Your task to perform on an android device: Open calendar and show me the first week of next month Image 0: 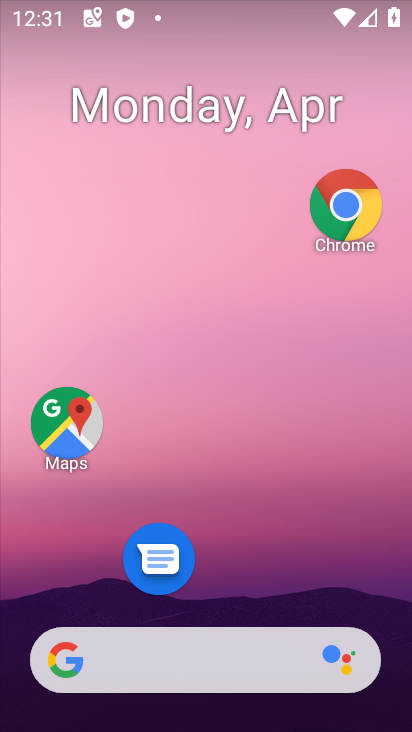
Step 0: drag from (256, 567) to (253, 107)
Your task to perform on an android device: Open calendar and show me the first week of next month Image 1: 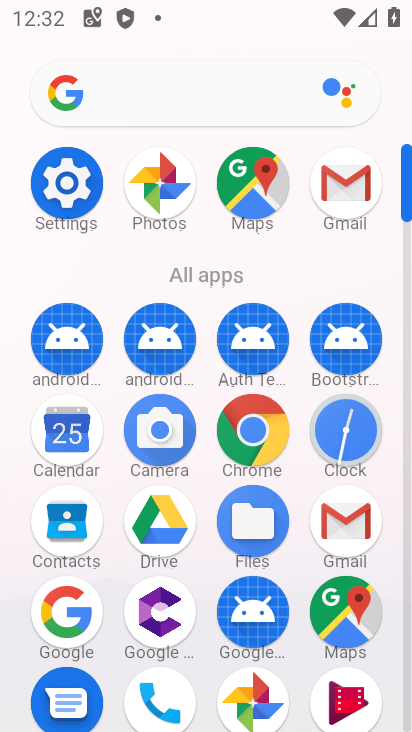
Step 1: click (44, 439)
Your task to perform on an android device: Open calendar and show me the first week of next month Image 2: 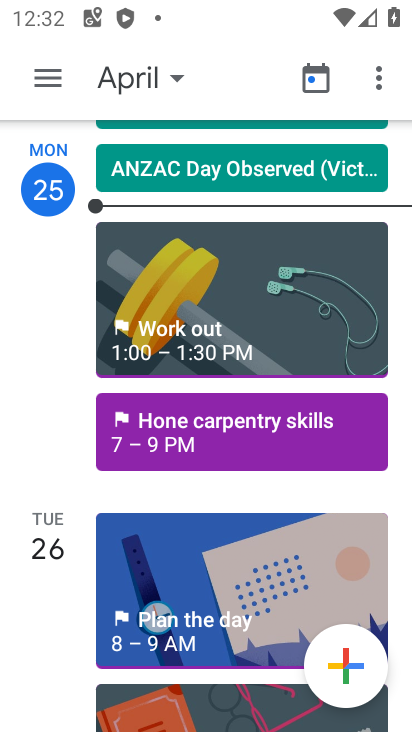
Step 2: click (158, 80)
Your task to perform on an android device: Open calendar and show me the first week of next month Image 3: 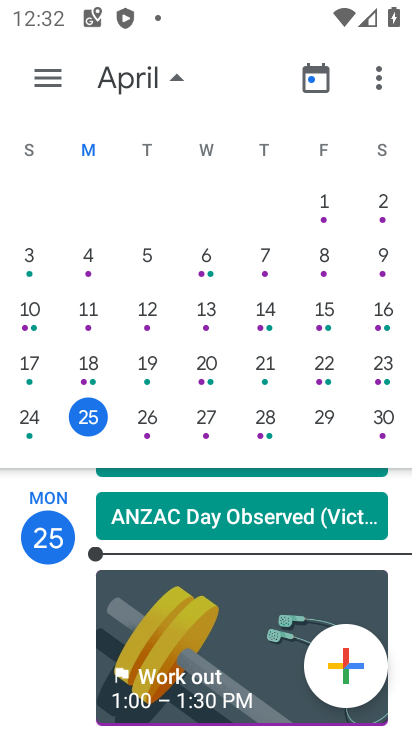
Step 3: drag from (324, 328) to (0, 285)
Your task to perform on an android device: Open calendar and show me the first week of next month Image 4: 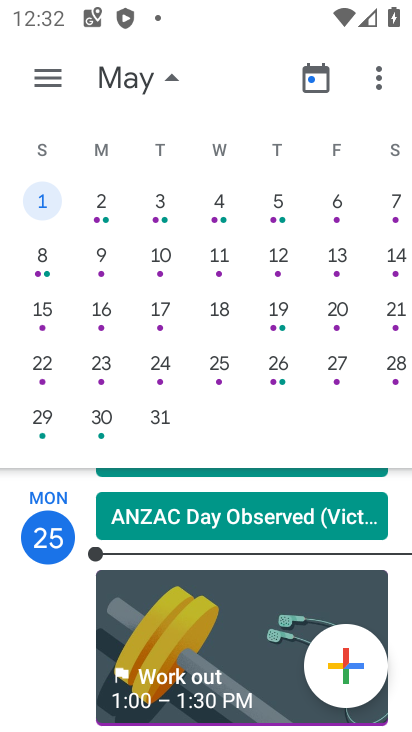
Step 4: click (43, 204)
Your task to perform on an android device: Open calendar and show me the first week of next month Image 5: 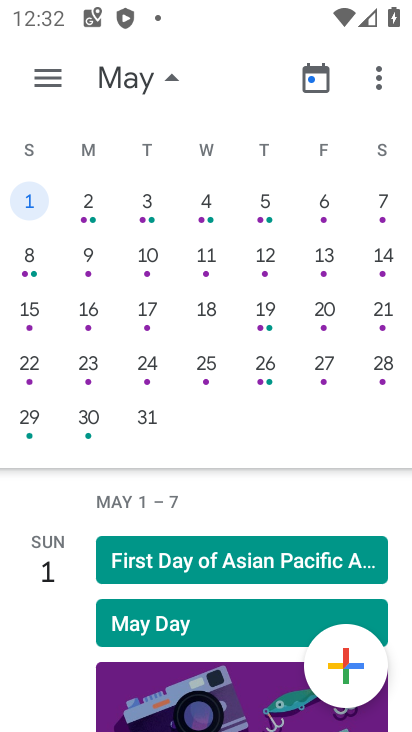
Step 5: click (36, 80)
Your task to perform on an android device: Open calendar and show me the first week of next month Image 6: 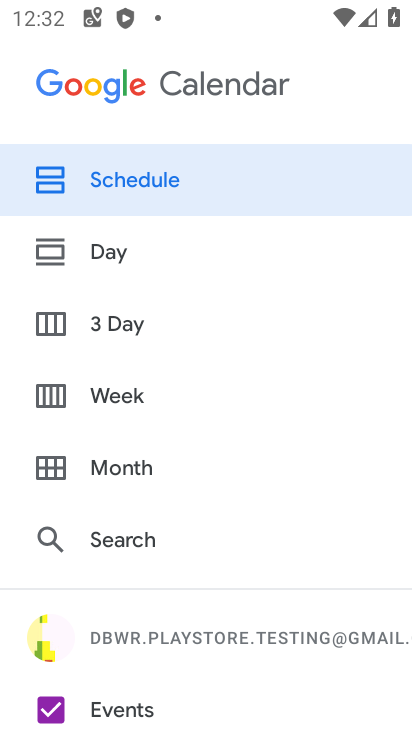
Step 6: click (140, 399)
Your task to perform on an android device: Open calendar and show me the first week of next month Image 7: 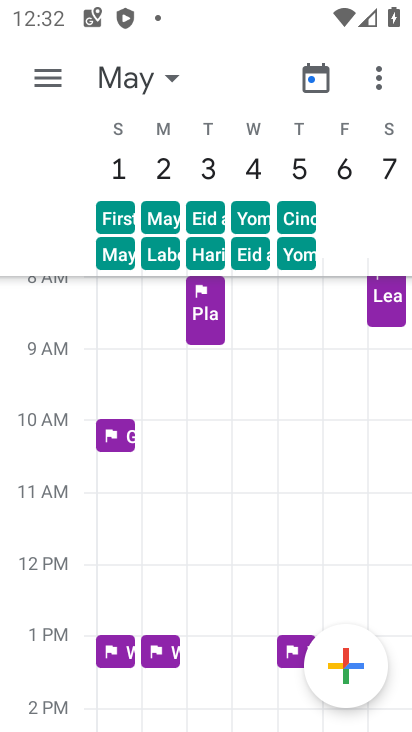
Step 7: task complete